Your task to perform on an android device: install app "Duolingo: language lessons" Image 0: 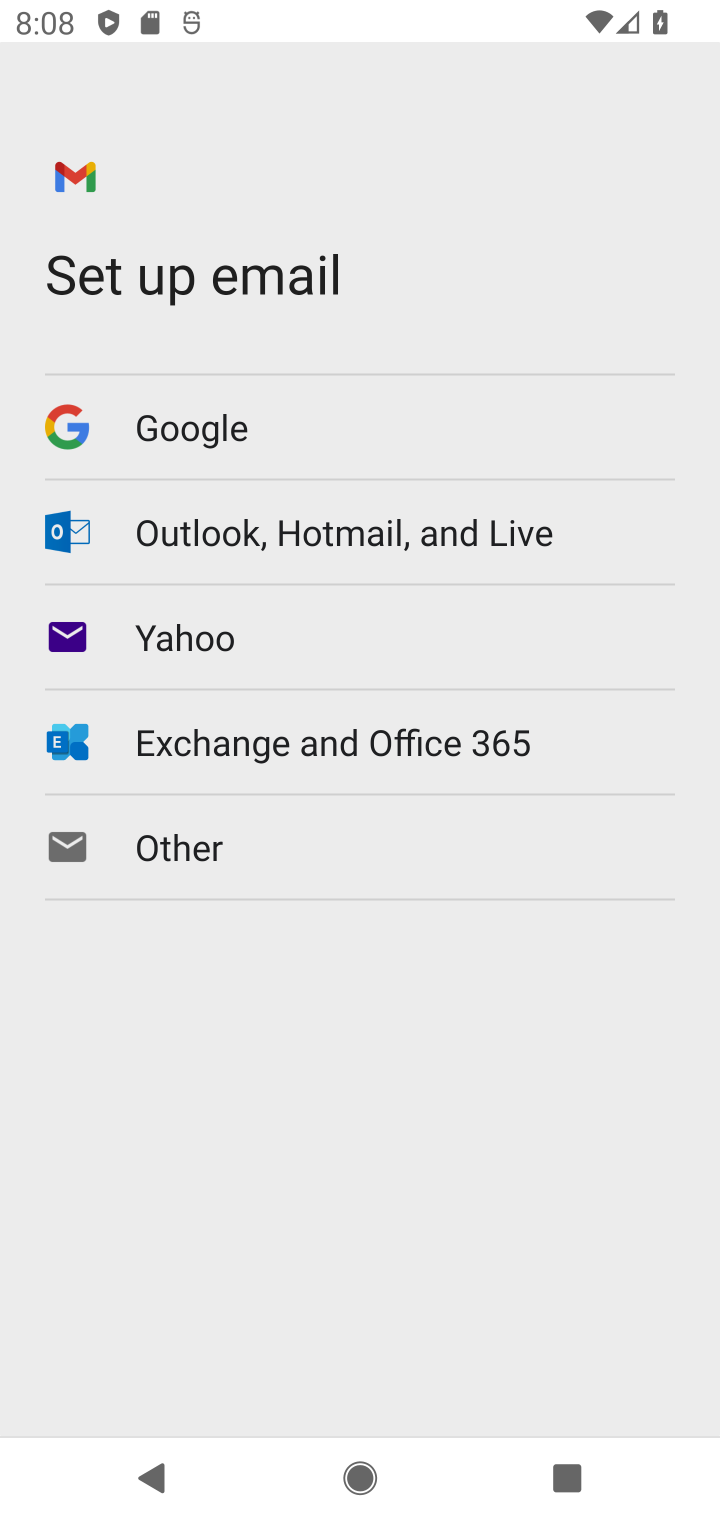
Step 0: press home button
Your task to perform on an android device: install app "Duolingo: language lessons" Image 1: 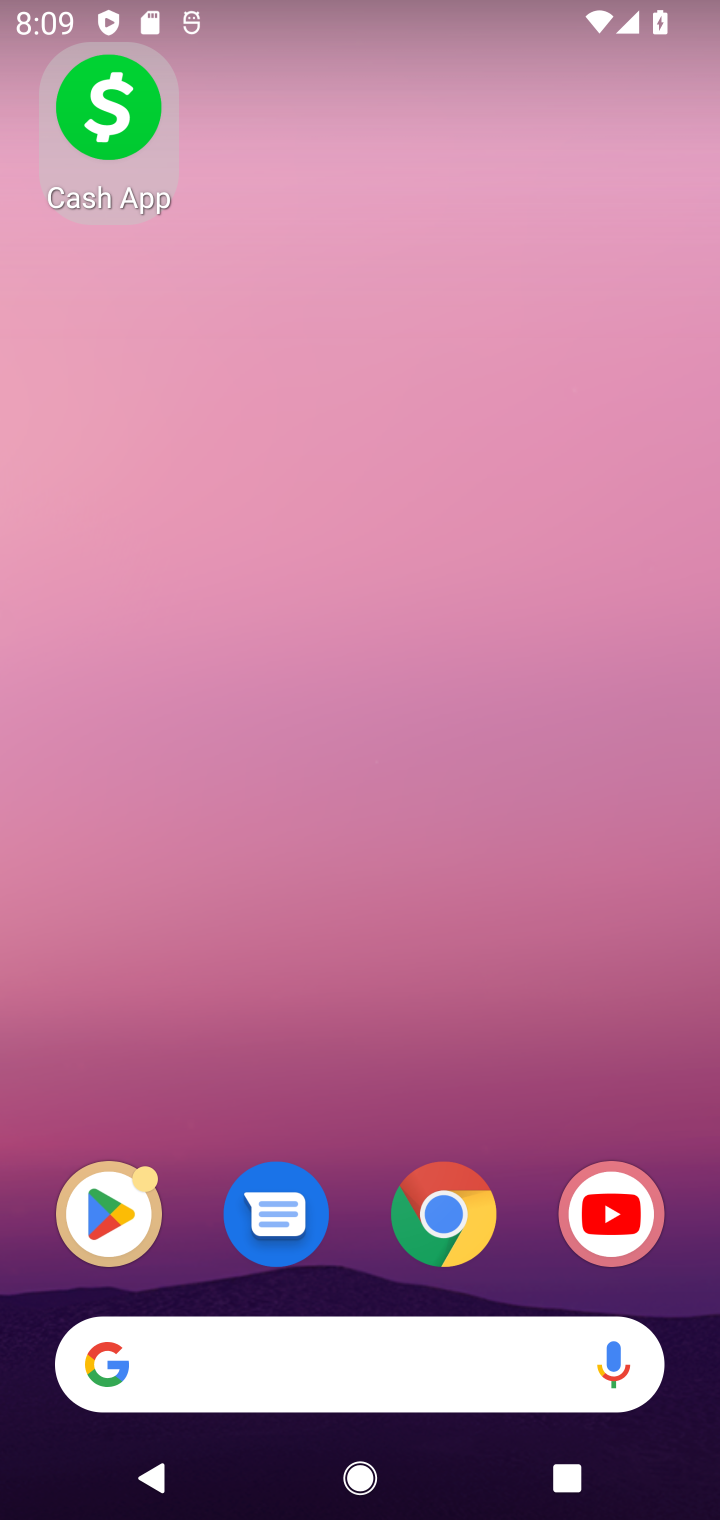
Step 1: click (121, 1210)
Your task to perform on an android device: install app "Duolingo: language lessons" Image 2: 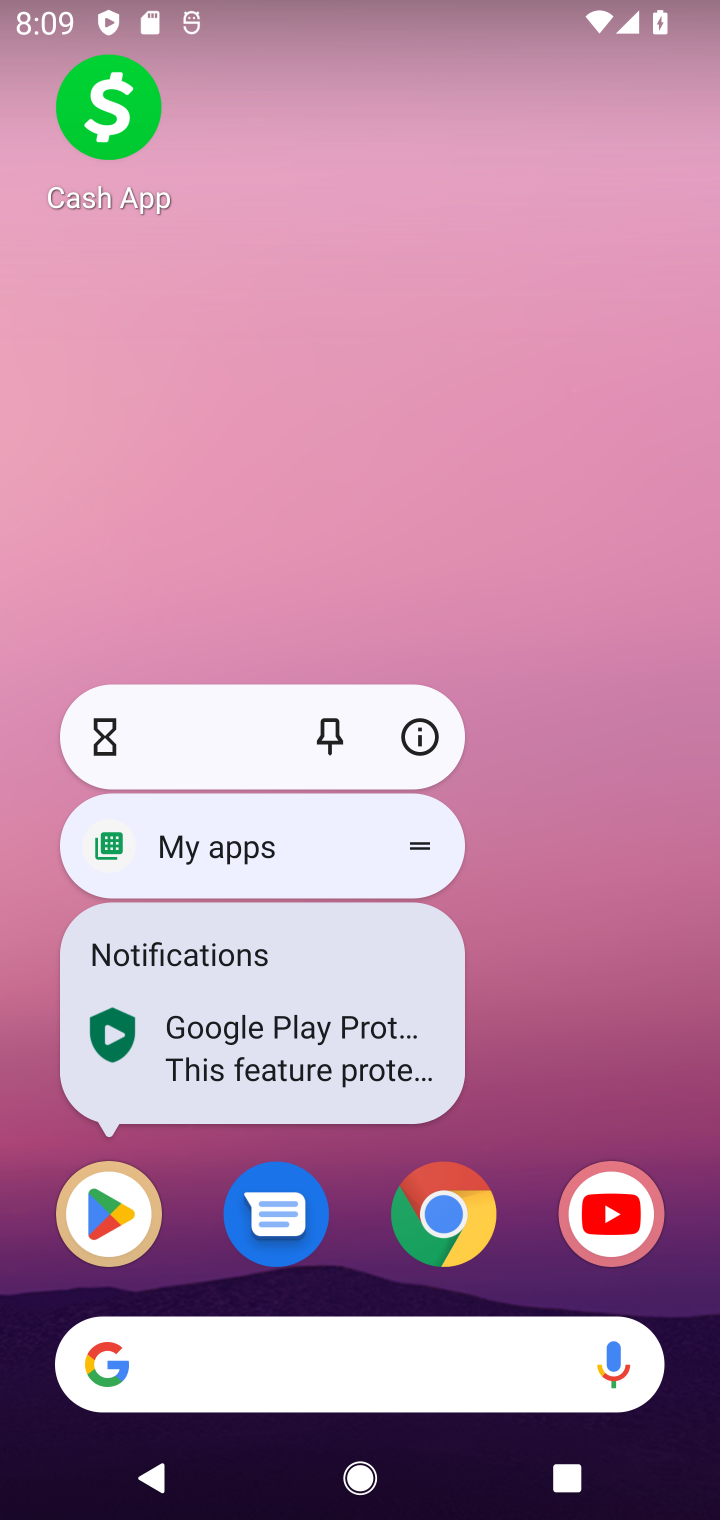
Step 2: click (118, 1218)
Your task to perform on an android device: install app "Duolingo: language lessons" Image 3: 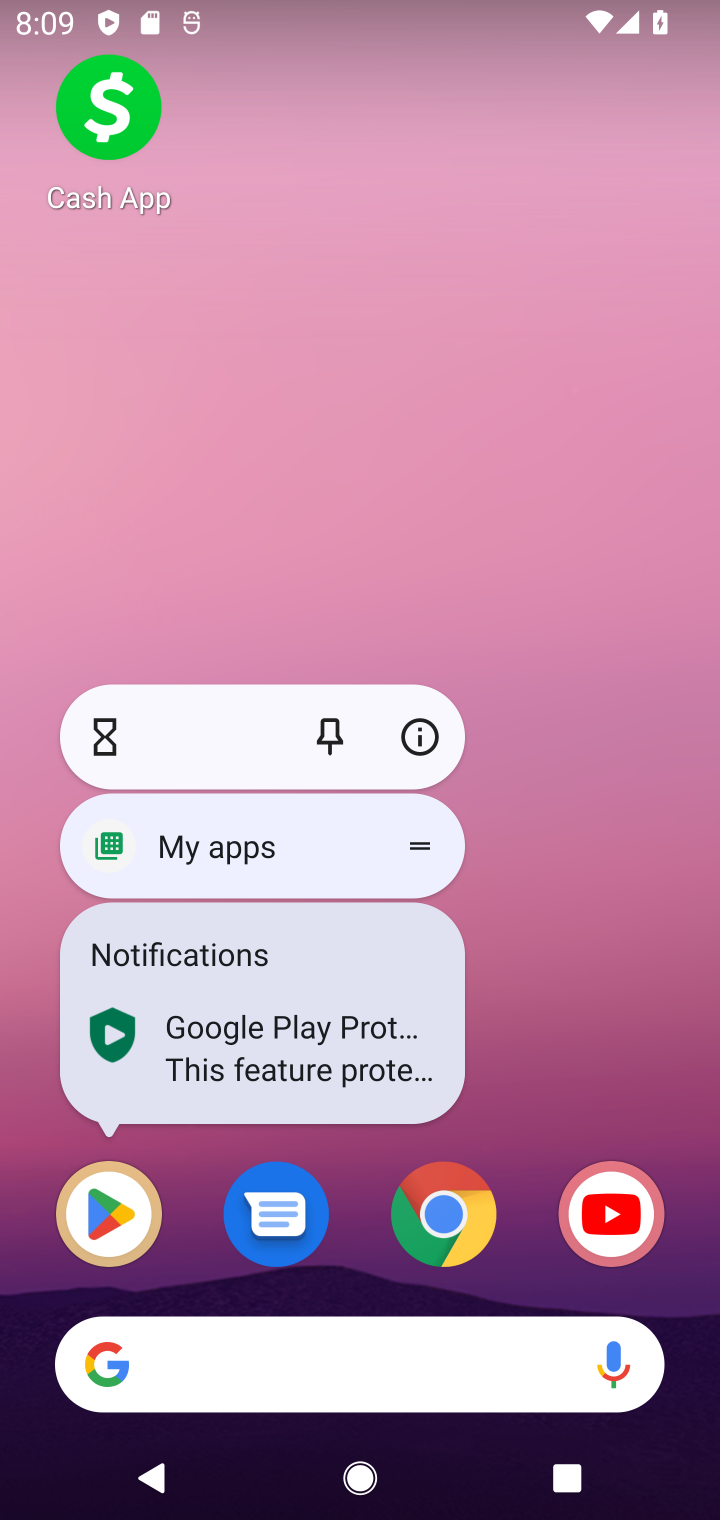
Step 3: click (105, 1220)
Your task to perform on an android device: install app "Duolingo: language lessons" Image 4: 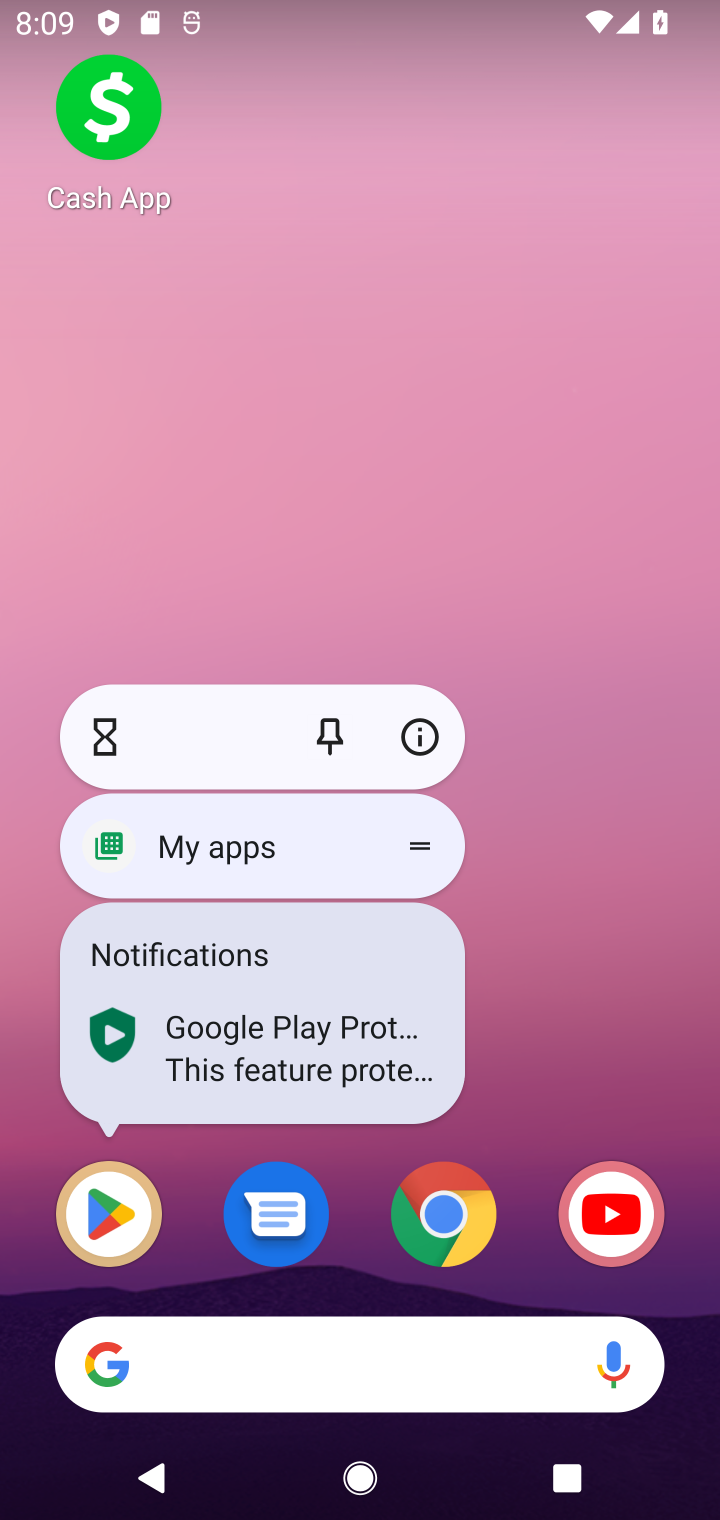
Step 4: click (138, 1212)
Your task to perform on an android device: install app "Duolingo: language lessons" Image 5: 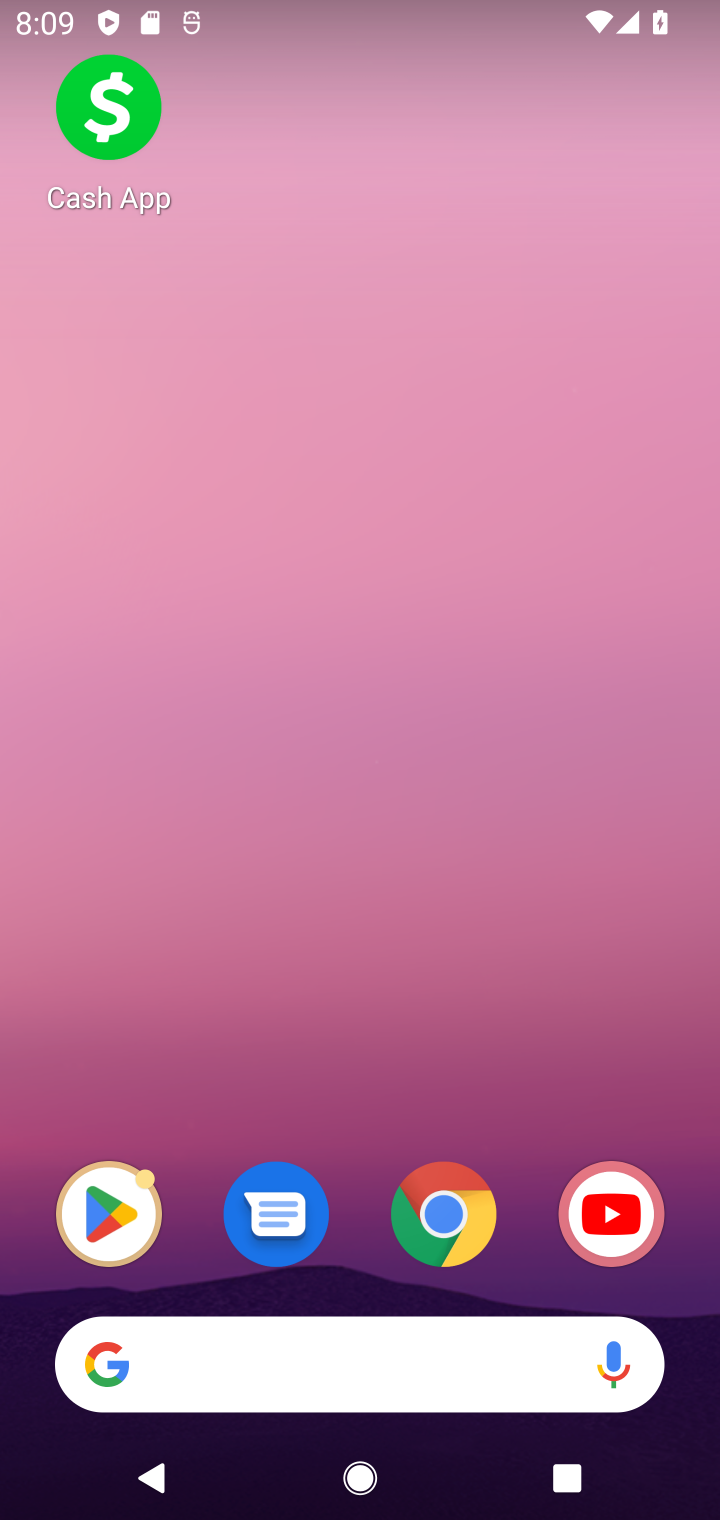
Step 5: click (138, 1209)
Your task to perform on an android device: install app "Duolingo: language lessons" Image 6: 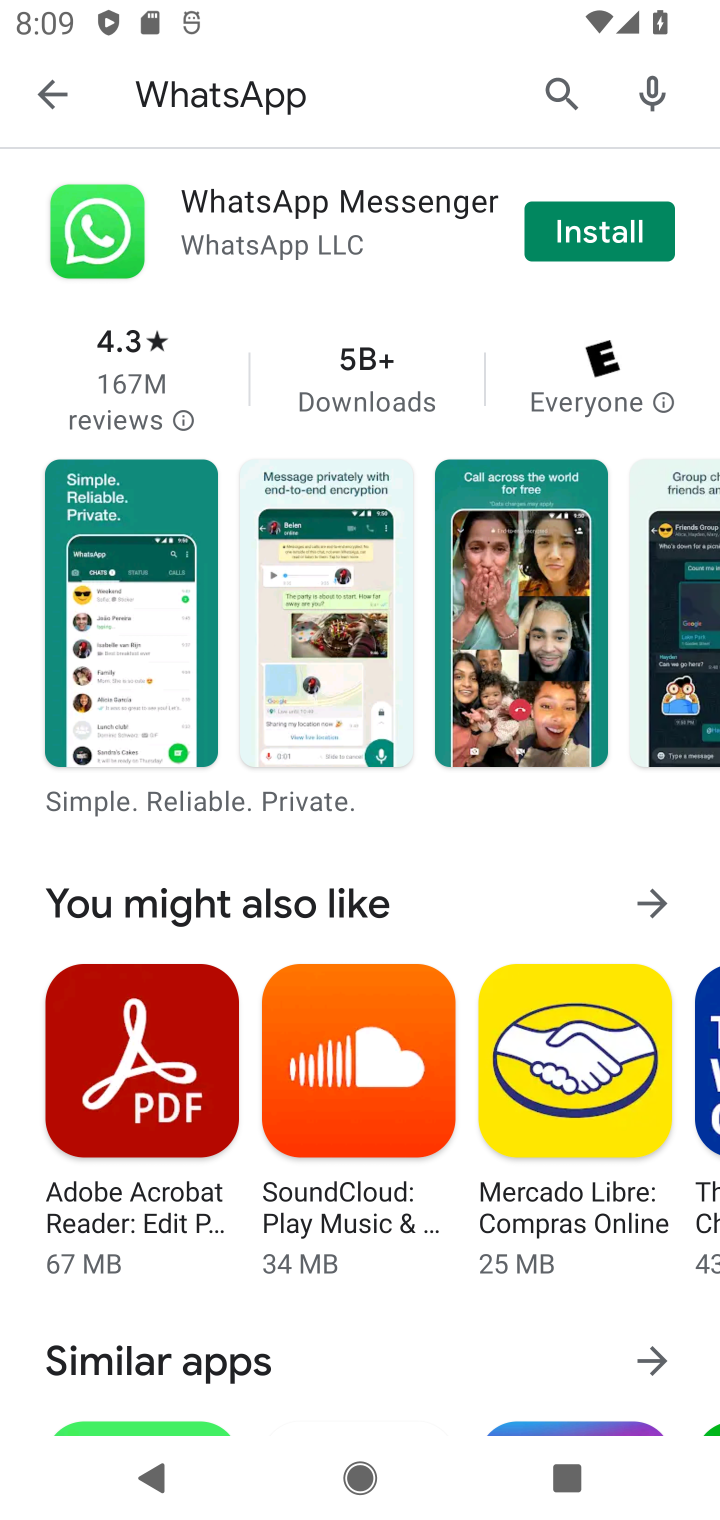
Step 6: click (582, 90)
Your task to perform on an android device: install app "Duolingo: language lessons" Image 7: 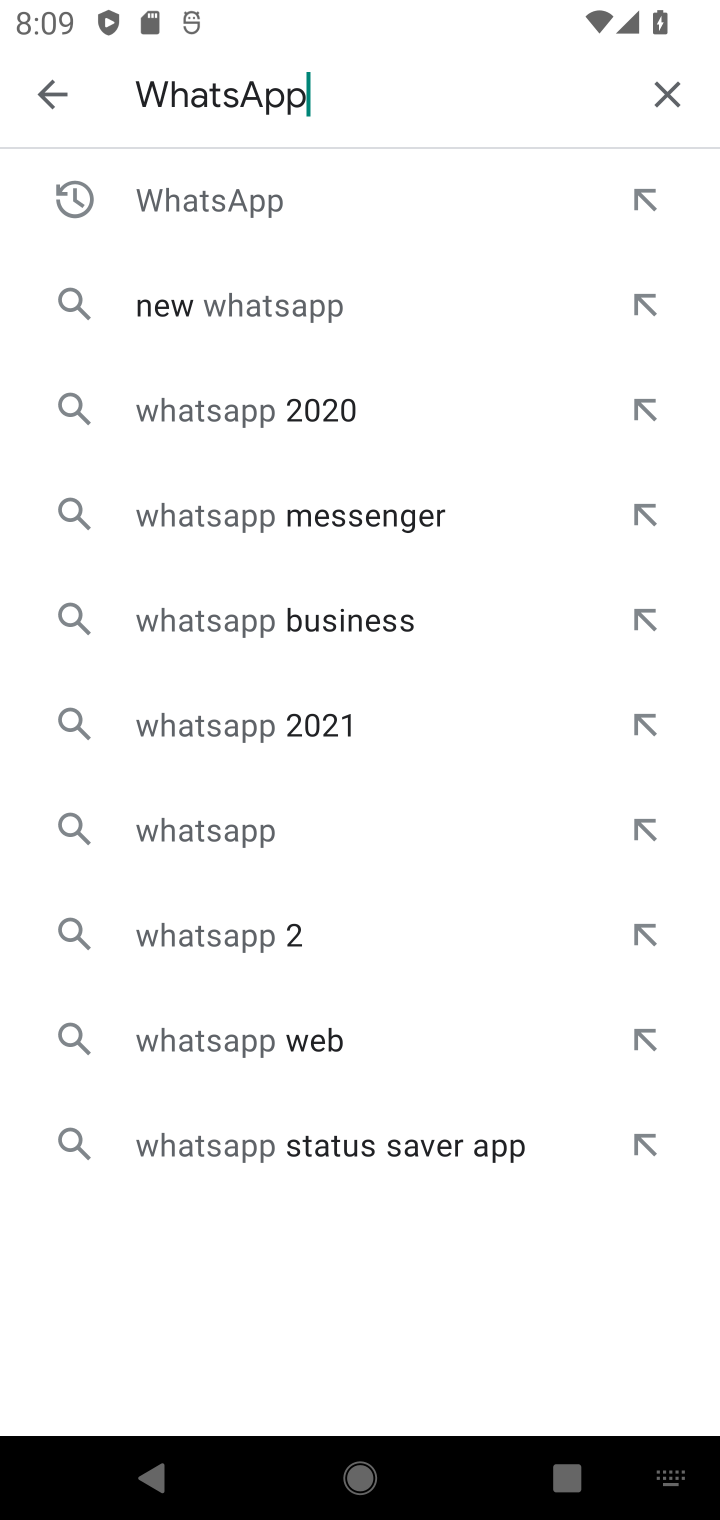
Step 7: click (662, 89)
Your task to perform on an android device: install app "Duolingo: language lessons" Image 8: 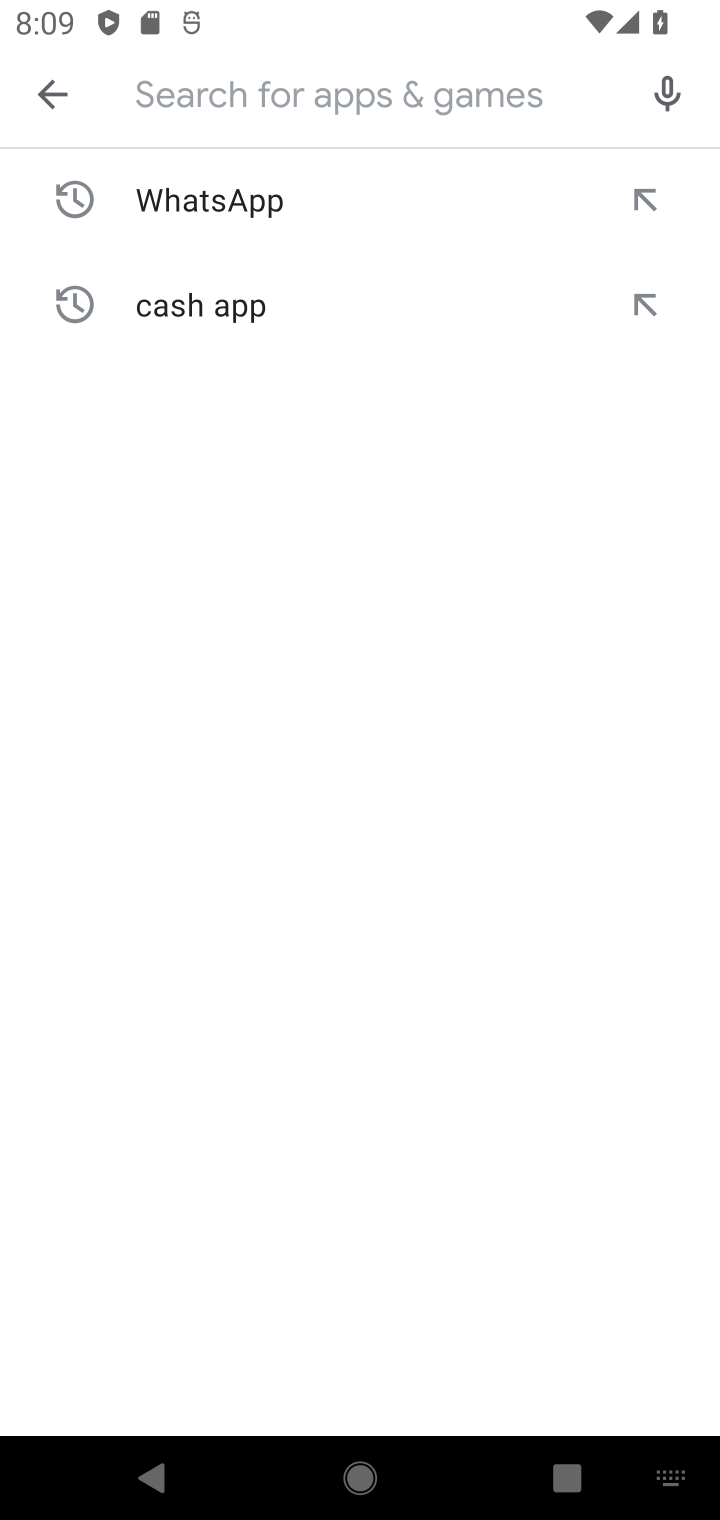
Step 8: type "Duolingo"
Your task to perform on an android device: install app "Duolingo: language lessons" Image 9: 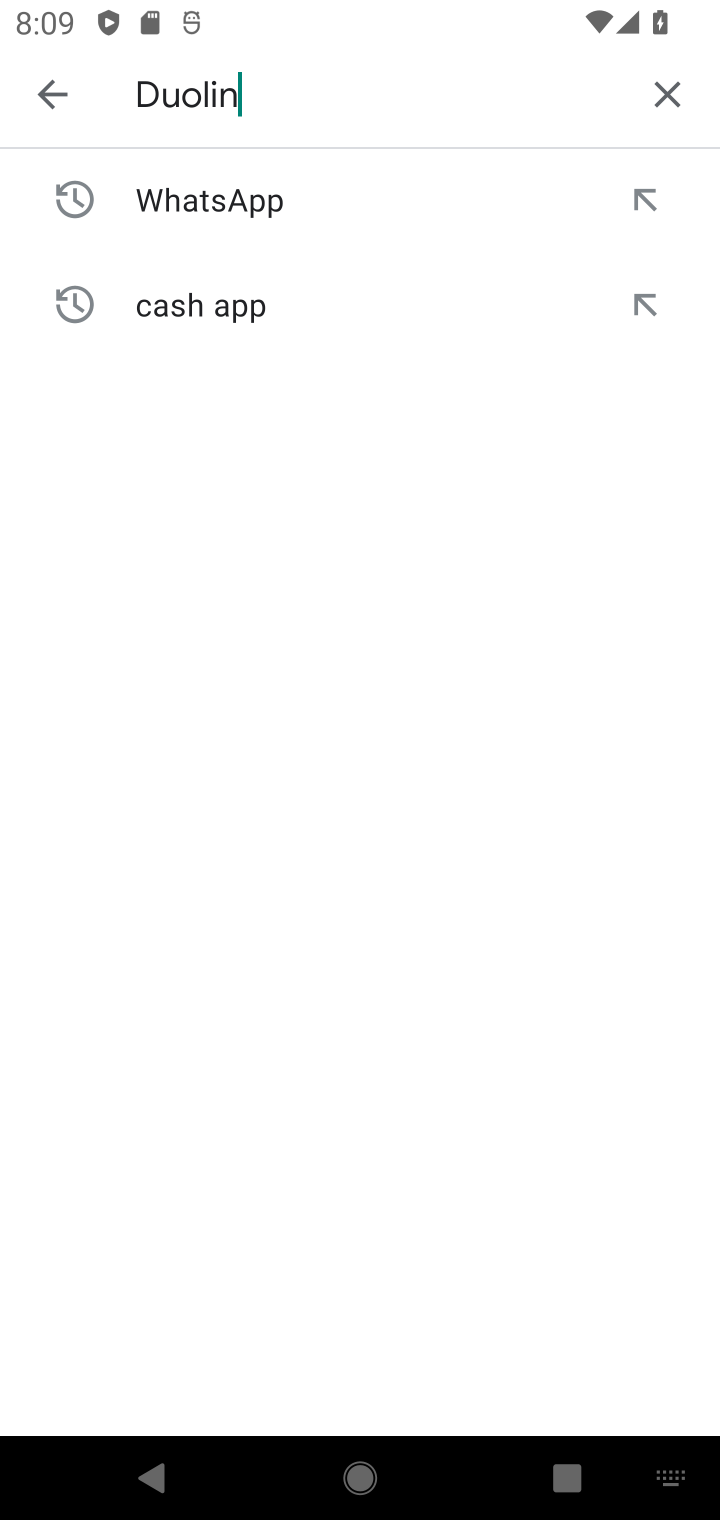
Step 9: press enter
Your task to perform on an android device: install app "Duolingo: language lessons" Image 10: 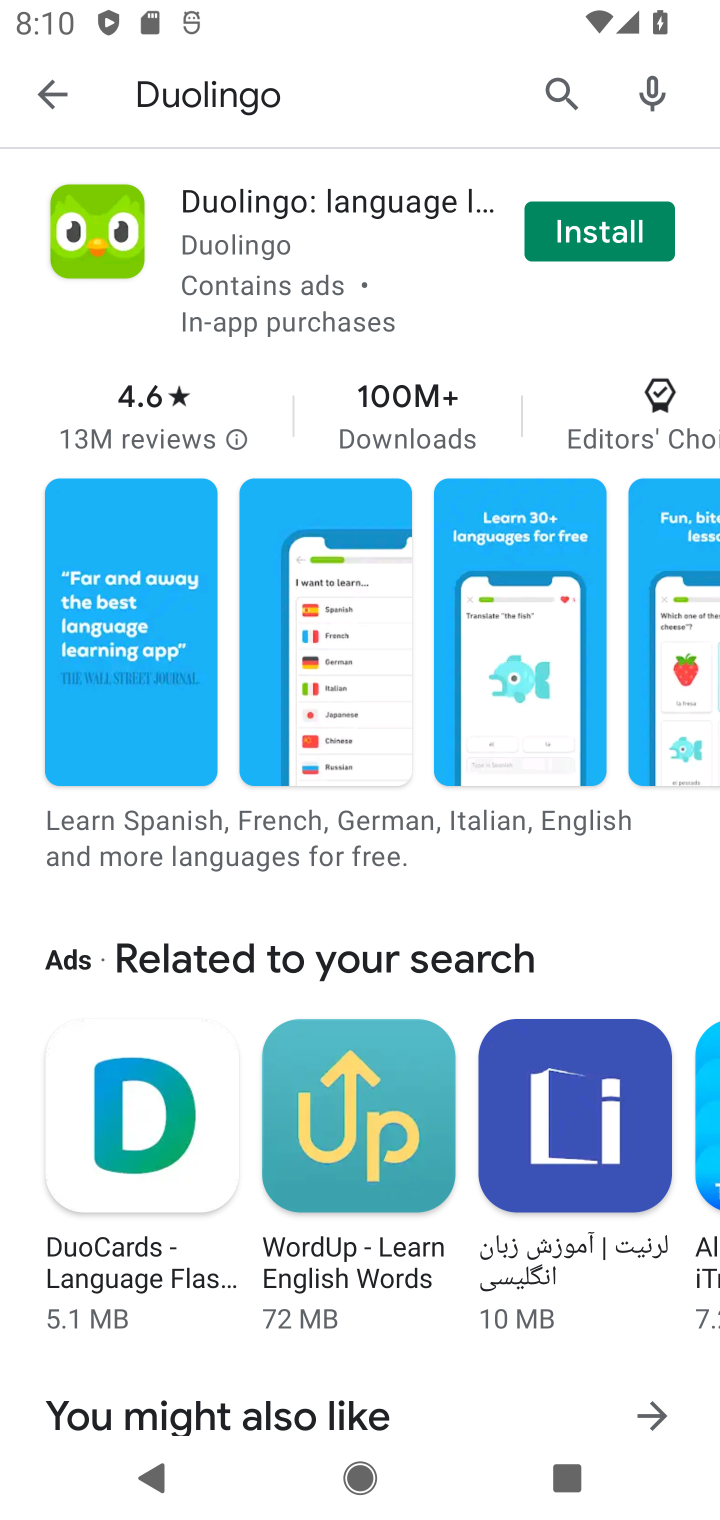
Step 10: click (629, 215)
Your task to perform on an android device: install app "Duolingo: language lessons" Image 11: 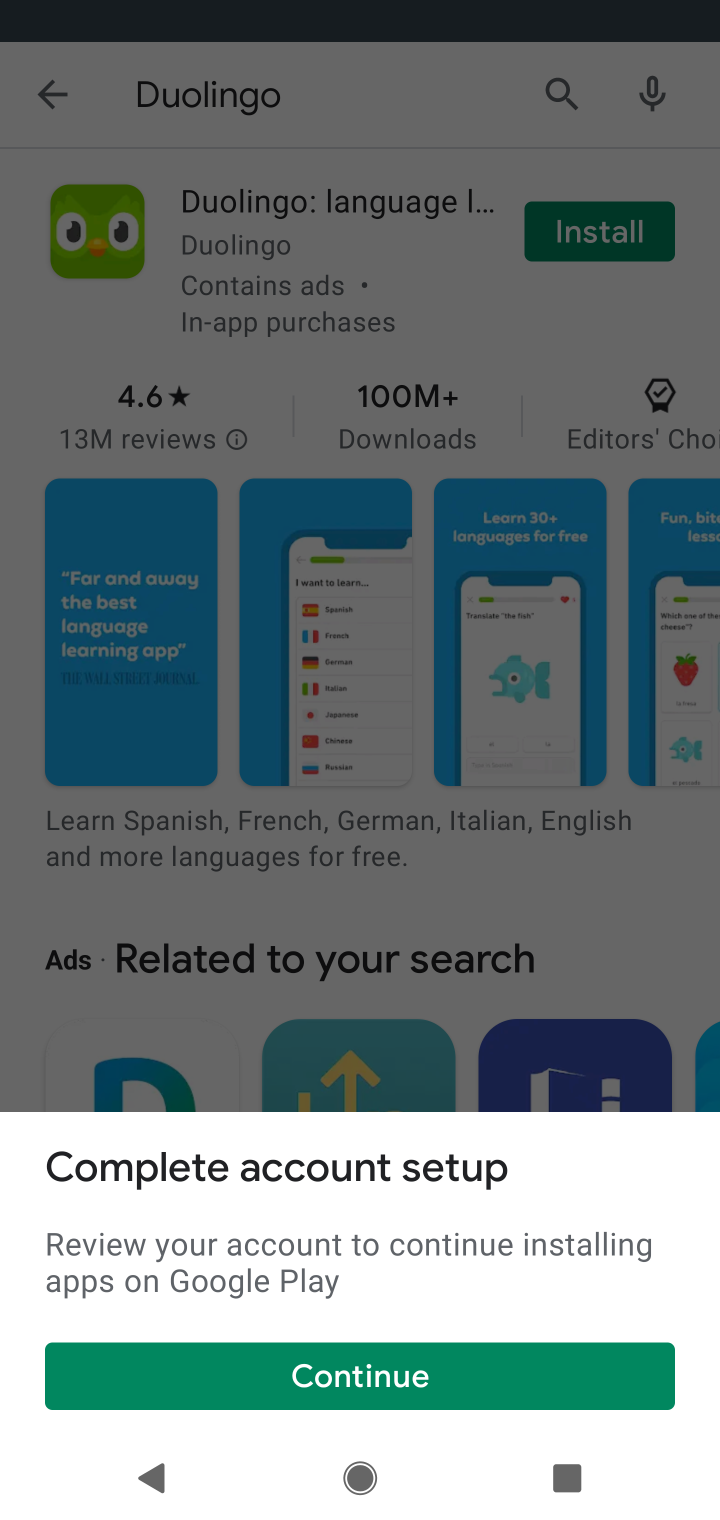
Step 11: click (289, 1380)
Your task to perform on an android device: install app "Duolingo: language lessons" Image 12: 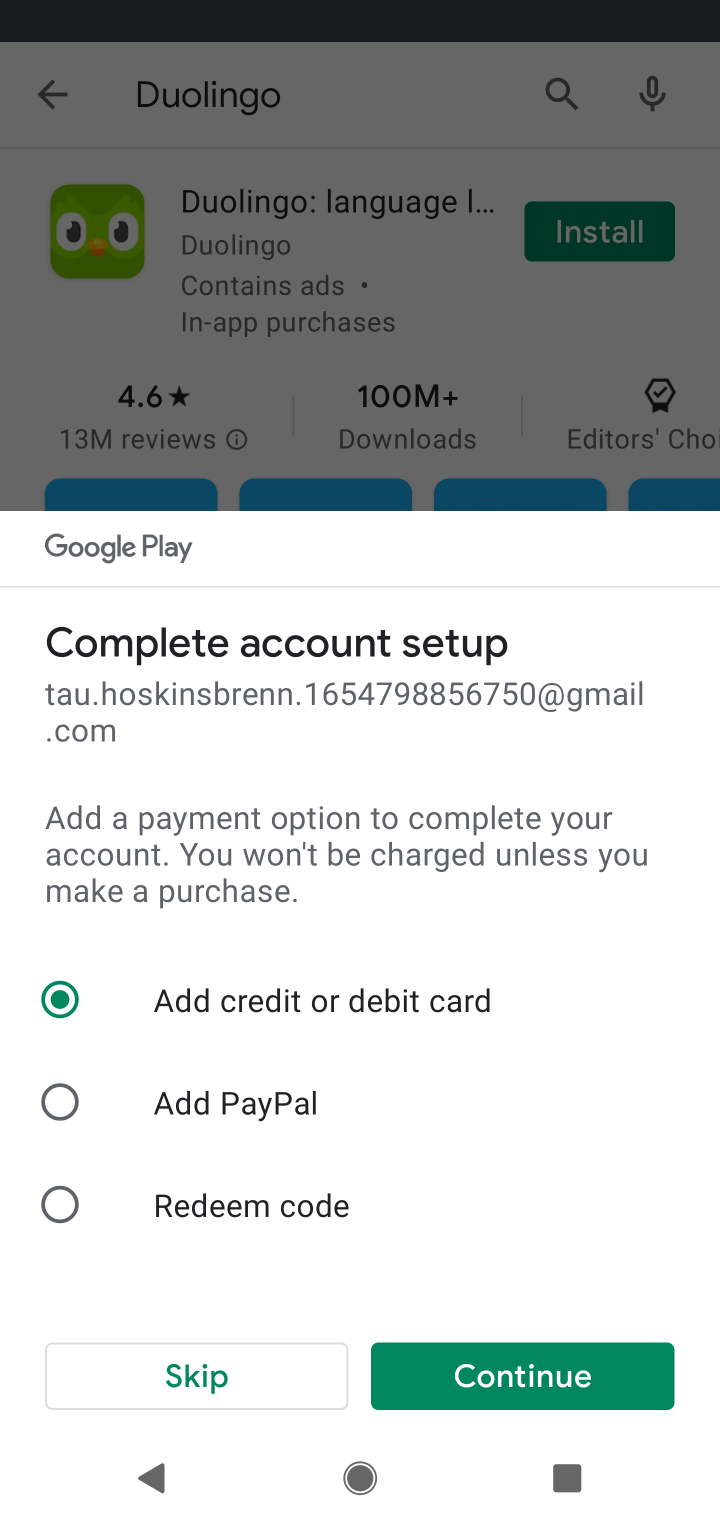
Step 12: click (220, 1393)
Your task to perform on an android device: install app "Duolingo: language lessons" Image 13: 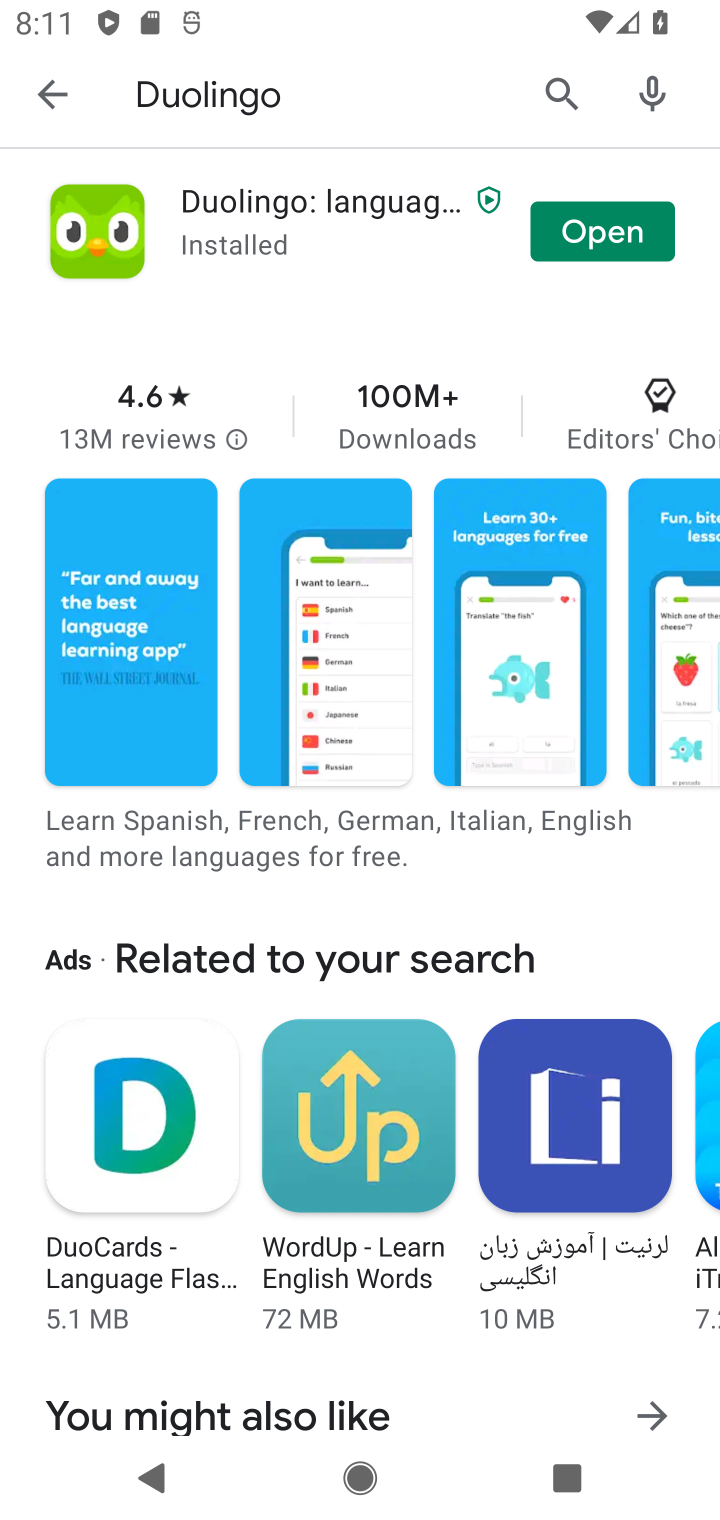
Step 13: task complete